Your task to perform on an android device: Go to accessibility settings Image 0: 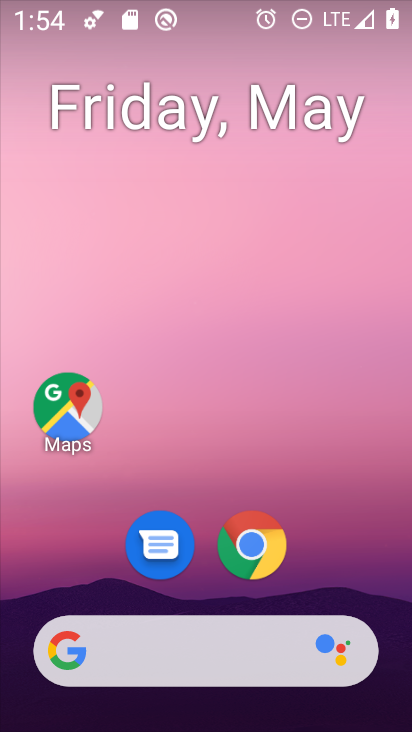
Step 0: drag from (353, 517) to (353, 221)
Your task to perform on an android device: Go to accessibility settings Image 1: 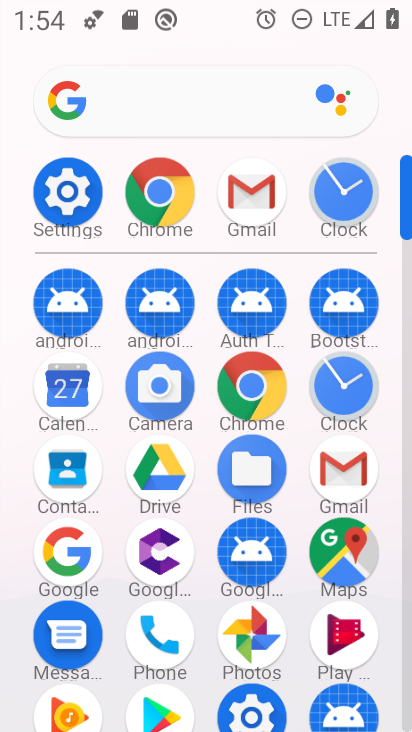
Step 1: click (66, 183)
Your task to perform on an android device: Go to accessibility settings Image 2: 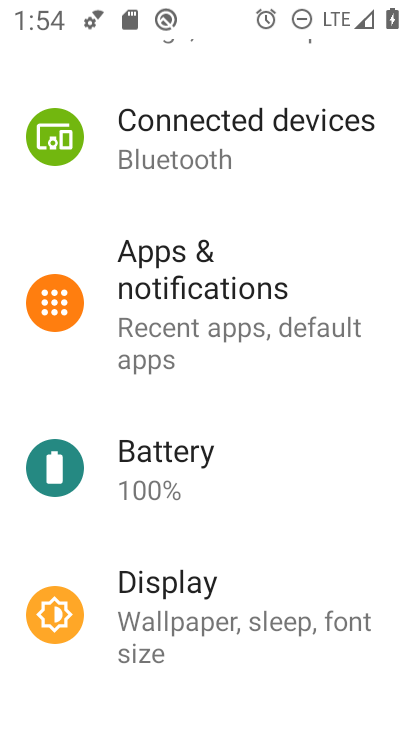
Step 2: drag from (262, 620) to (274, 285)
Your task to perform on an android device: Go to accessibility settings Image 3: 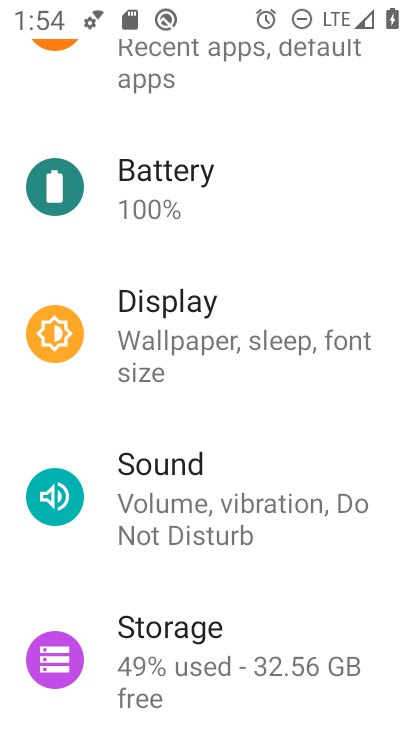
Step 3: drag from (233, 646) to (240, 202)
Your task to perform on an android device: Go to accessibility settings Image 4: 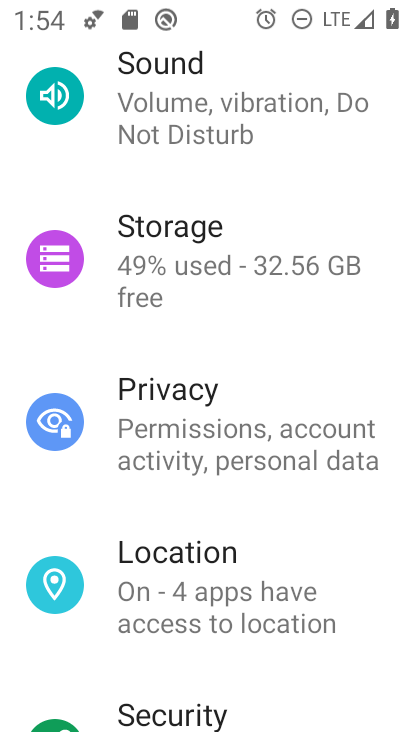
Step 4: drag from (237, 655) to (274, 196)
Your task to perform on an android device: Go to accessibility settings Image 5: 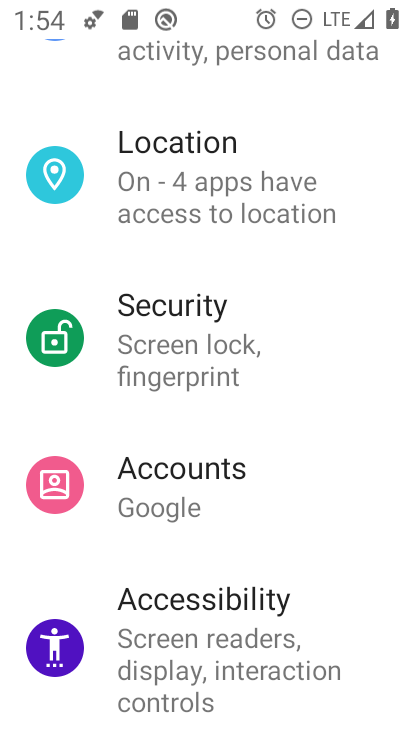
Step 5: click (258, 621)
Your task to perform on an android device: Go to accessibility settings Image 6: 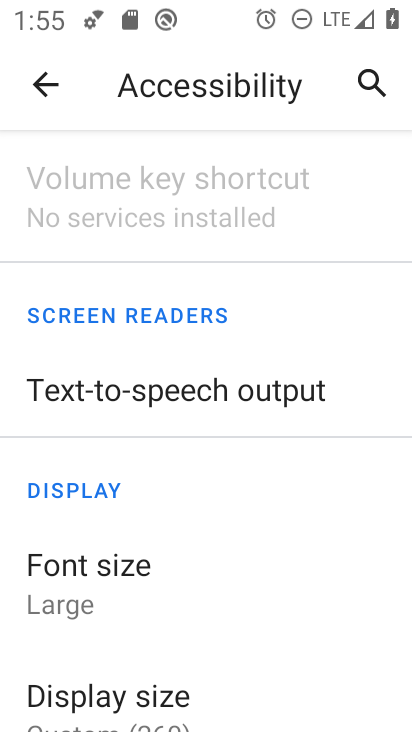
Step 6: task complete